Your task to perform on an android device: Open the calendar app, open the side menu, and click the "Day" option Image 0: 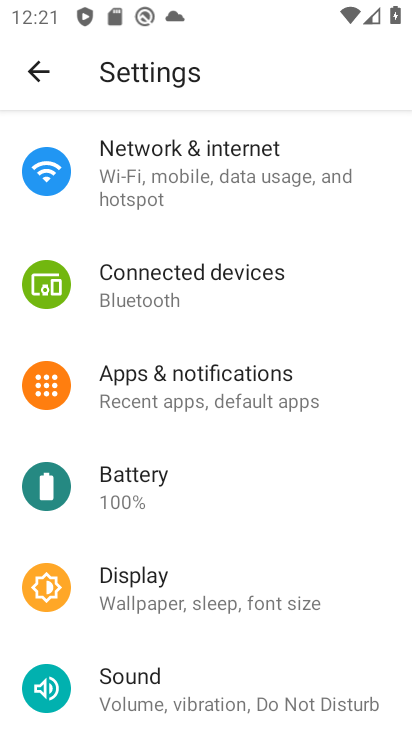
Step 0: press home button
Your task to perform on an android device: Open the calendar app, open the side menu, and click the "Day" option Image 1: 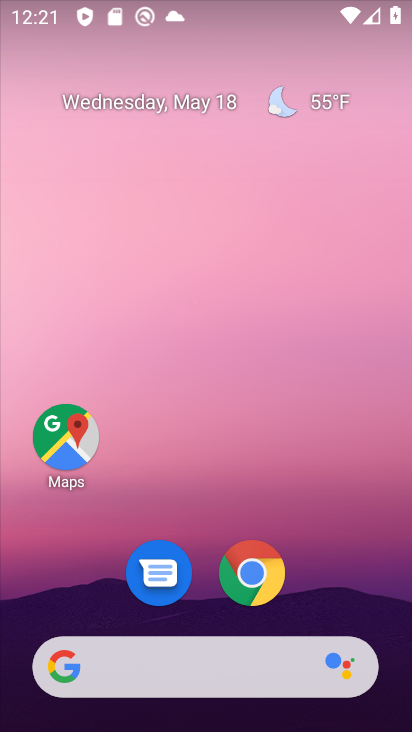
Step 1: drag from (378, 559) to (393, 125)
Your task to perform on an android device: Open the calendar app, open the side menu, and click the "Day" option Image 2: 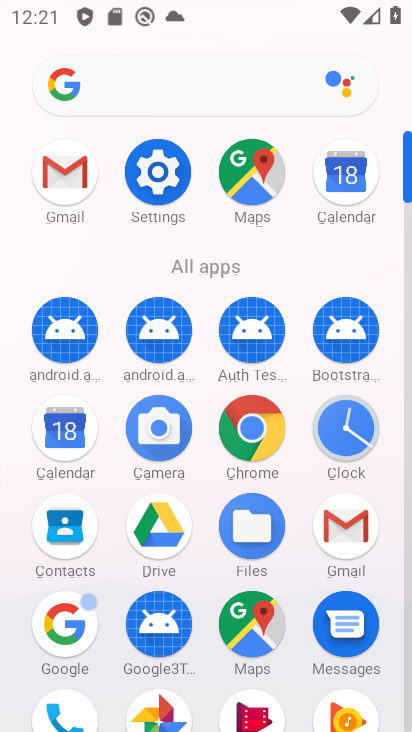
Step 2: click (358, 186)
Your task to perform on an android device: Open the calendar app, open the side menu, and click the "Day" option Image 3: 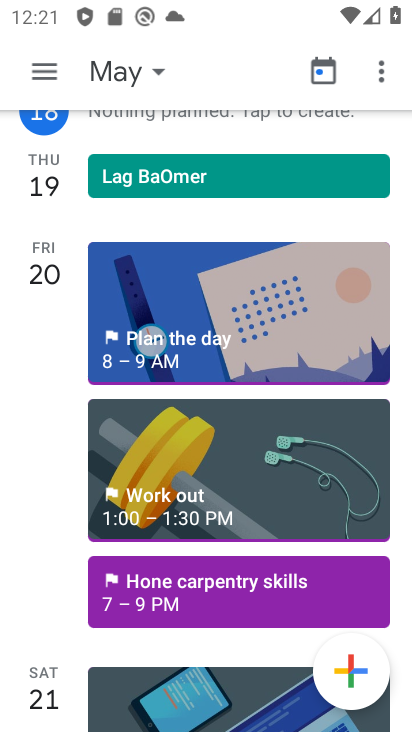
Step 3: click (46, 67)
Your task to perform on an android device: Open the calendar app, open the side menu, and click the "Day" option Image 4: 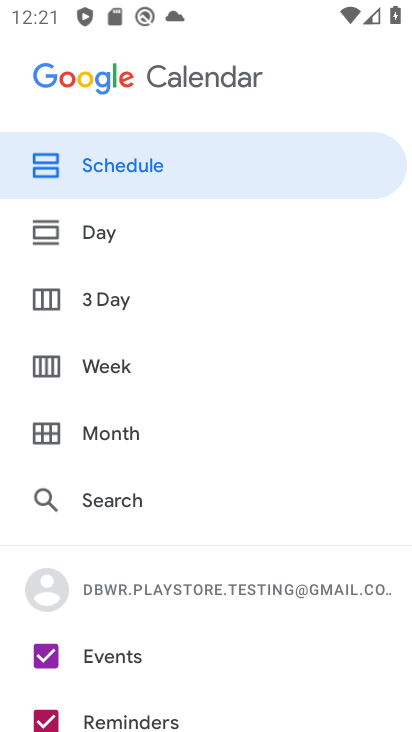
Step 4: drag from (257, 465) to (282, 228)
Your task to perform on an android device: Open the calendar app, open the side menu, and click the "Day" option Image 5: 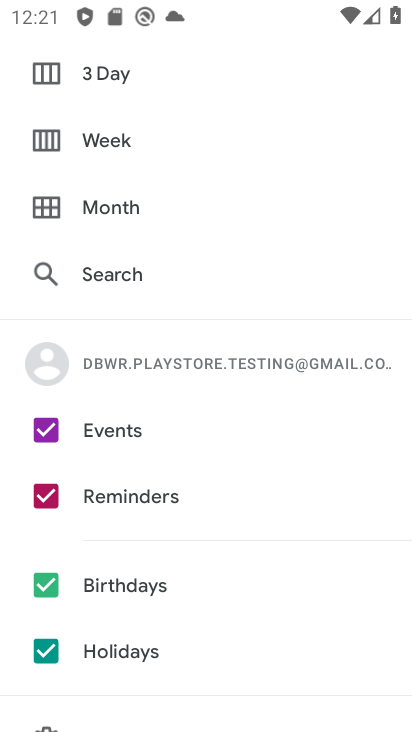
Step 5: drag from (289, 548) to (293, 260)
Your task to perform on an android device: Open the calendar app, open the side menu, and click the "Day" option Image 6: 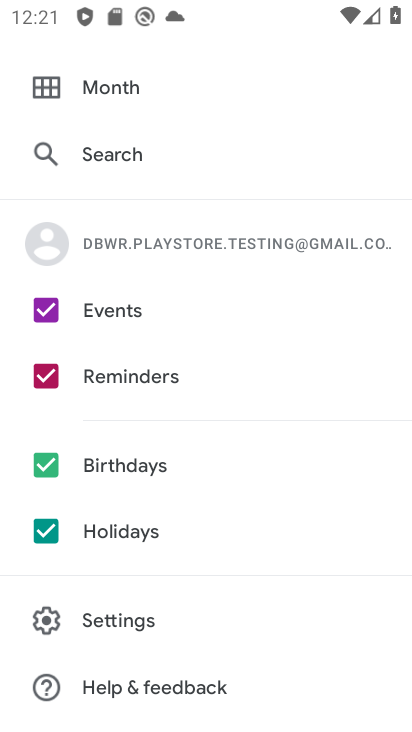
Step 6: drag from (300, 191) to (295, 371)
Your task to perform on an android device: Open the calendar app, open the side menu, and click the "Day" option Image 7: 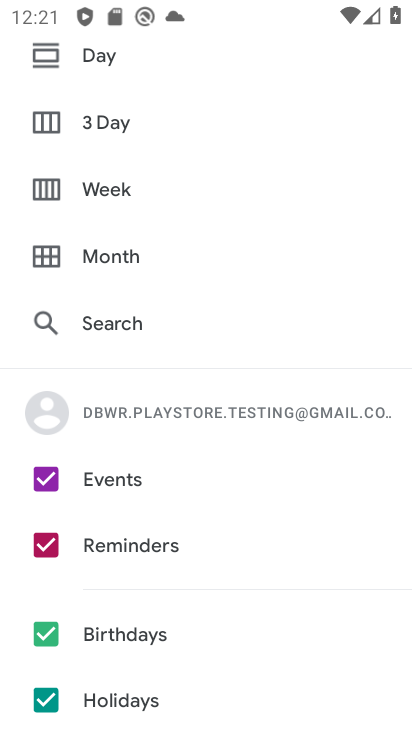
Step 7: drag from (277, 188) to (256, 394)
Your task to perform on an android device: Open the calendar app, open the side menu, and click the "Day" option Image 8: 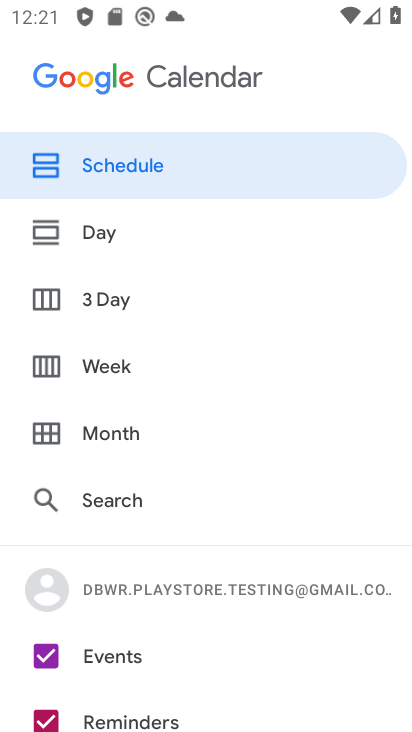
Step 8: click (140, 230)
Your task to perform on an android device: Open the calendar app, open the side menu, and click the "Day" option Image 9: 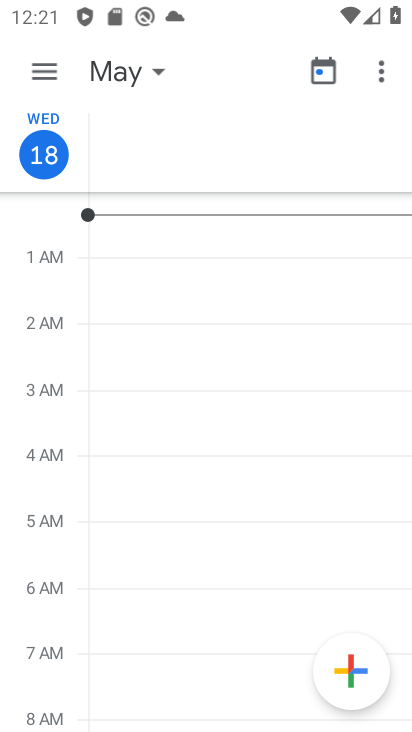
Step 9: task complete